Your task to perform on an android device: Open accessibility settings Image 0: 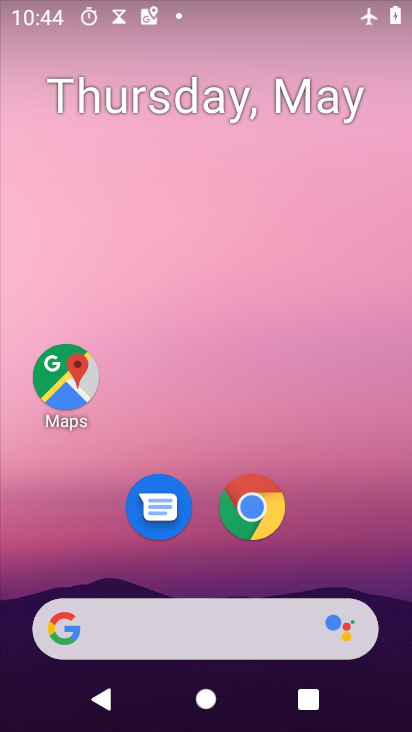
Step 0: drag from (330, 536) to (257, 27)
Your task to perform on an android device: Open accessibility settings Image 1: 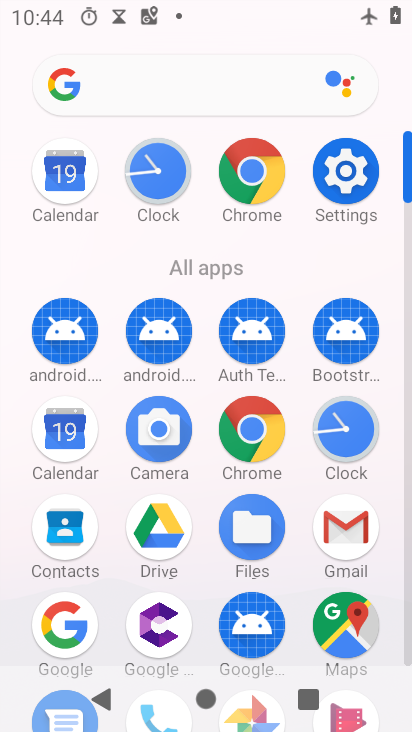
Step 1: drag from (12, 545) to (5, 228)
Your task to perform on an android device: Open accessibility settings Image 2: 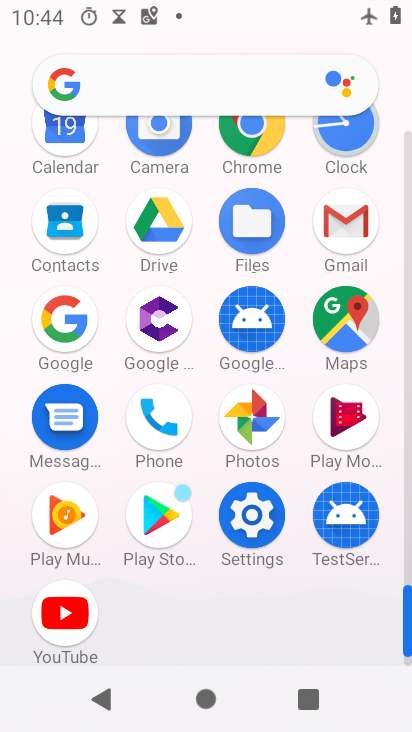
Step 2: click (248, 512)
Your task to perform on an android device: Open accessibility settings Image 3: 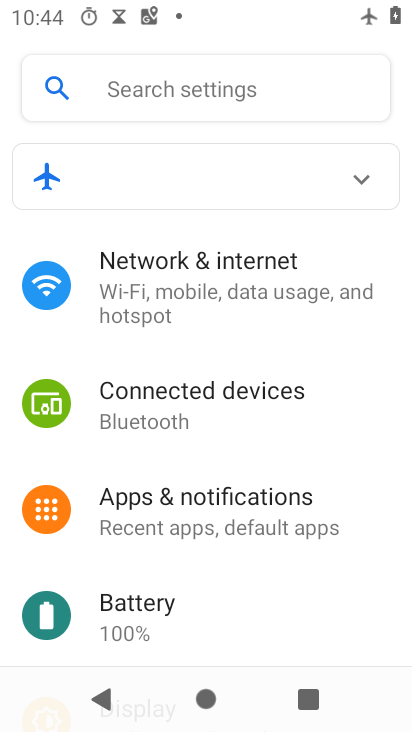
Step 3: drag from (317, 577) to (267, 158)
Your task to perform on an android device: Open accessibility settings Image 4: 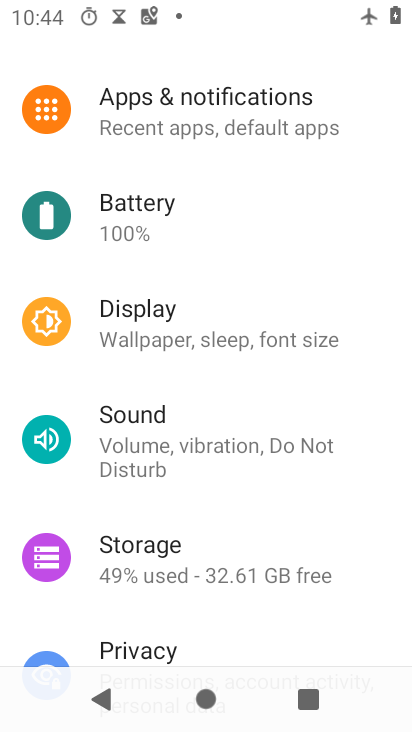
Step 4: drag from (274, 549) to (248, 153)
Your task to perform on an android device: Open accessibility settings Image 5: 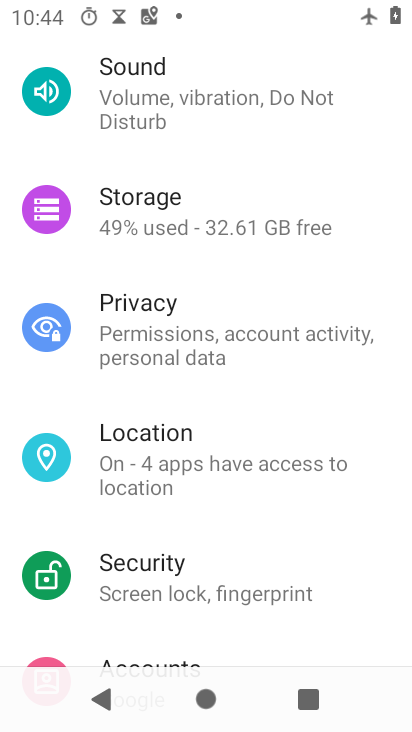
Step 5: drag from (225, 566) to (229, 166)
Your task to perform on an android device: Open accessibility settings Image 6: 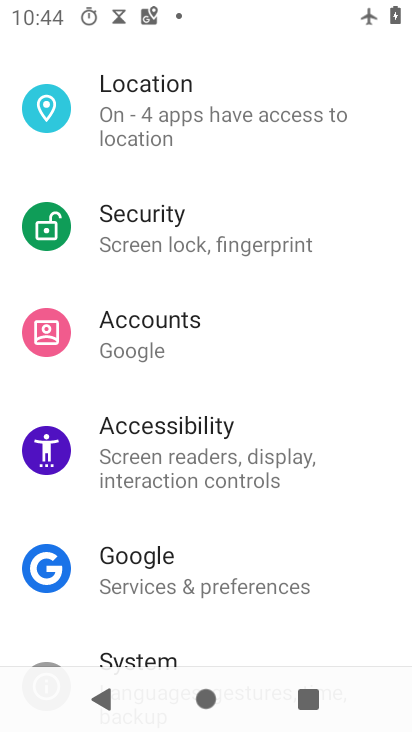
Step 6: click (210, 450)
Your task to perform on an android device: Open accessibility settings Image 7: 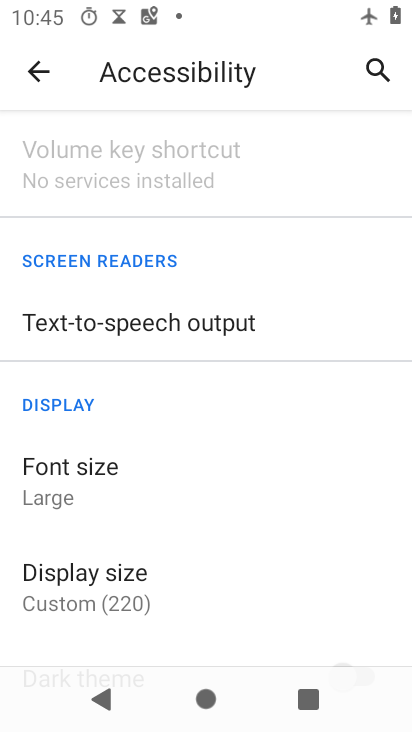
Step 7: task complete